Your task to perform on an android device: Open the Play Movies app and select the watchlist tab. Image 0: 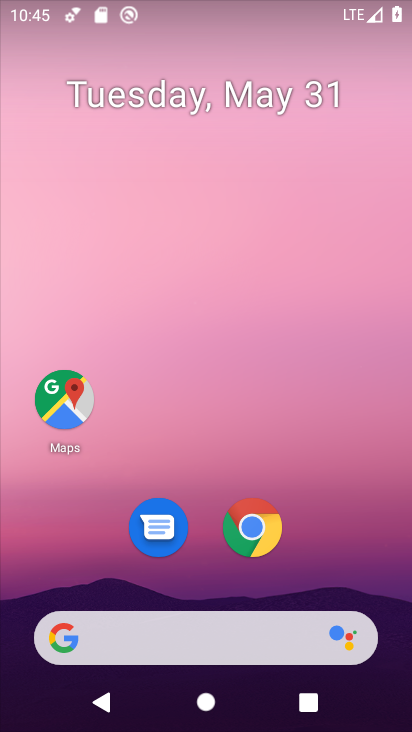
Step 0: drag from (369, 582) to (325, 14)
Your task to perform on an android device: Open the Play Movies app and select the watchlist tab. Image 1: 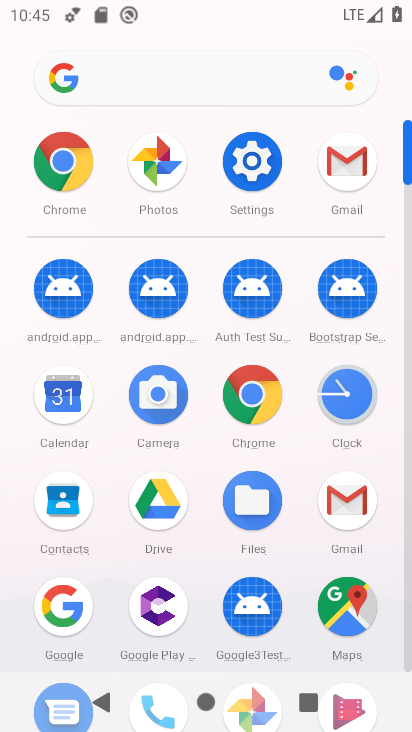
Step 1: click (405, 615)
Your task to perform on an android device: Open the Play Movies app and select the watchlist tab. Image 2: 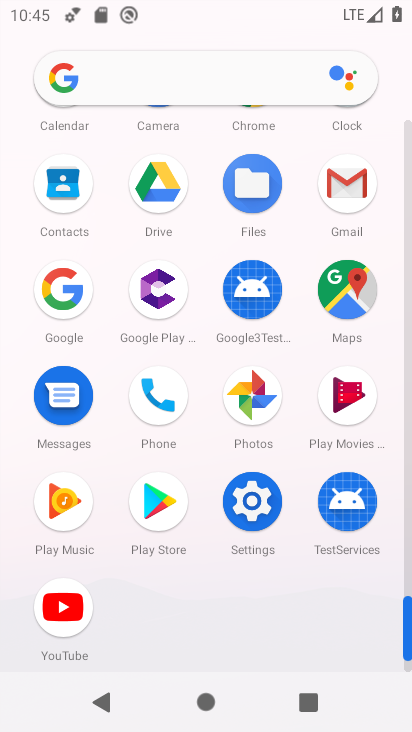
Step 2: click (347, 409)
Your task to perform on an android device: Open the Play Movies app and select the watchlist tab. Image 3: 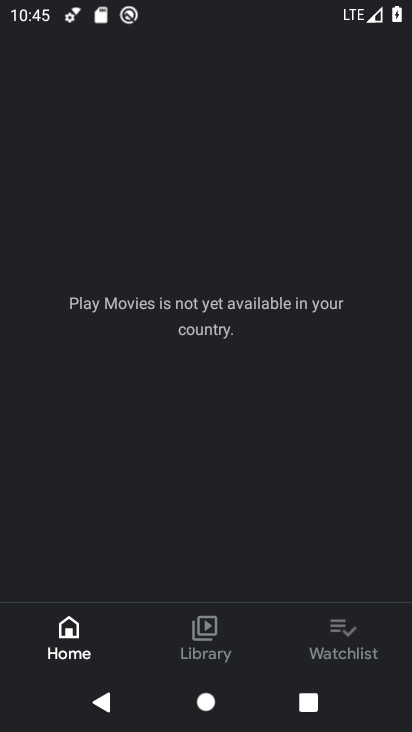
Step 3: click (343, 633)
Your task to perform on an android device: Open the Play Movies app and select the watchlist tab. Image 4: 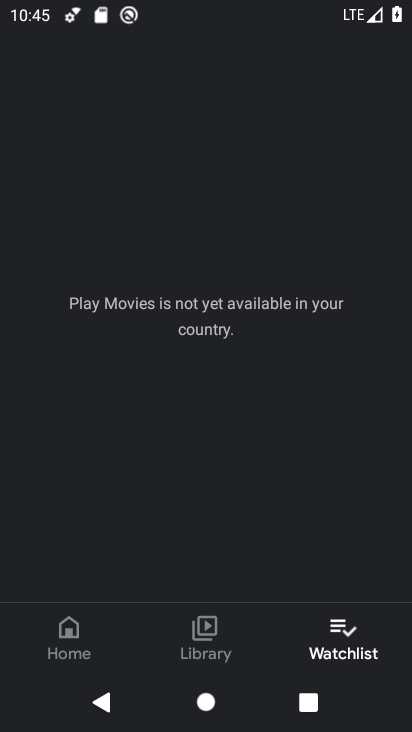
Step 4: task complete